Your task to perform on an android device: turn pop-ups on in chrome Image 0: 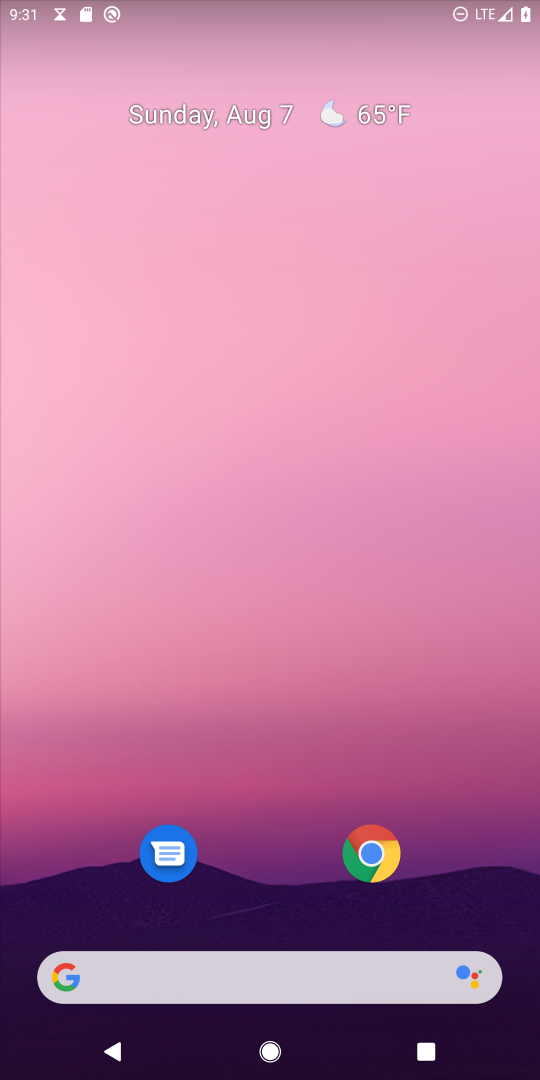
Step 0: drag from (308, 310) to (289, 45)
Your task to perform on an android device: turn pop-ups on in chrome Image 1: 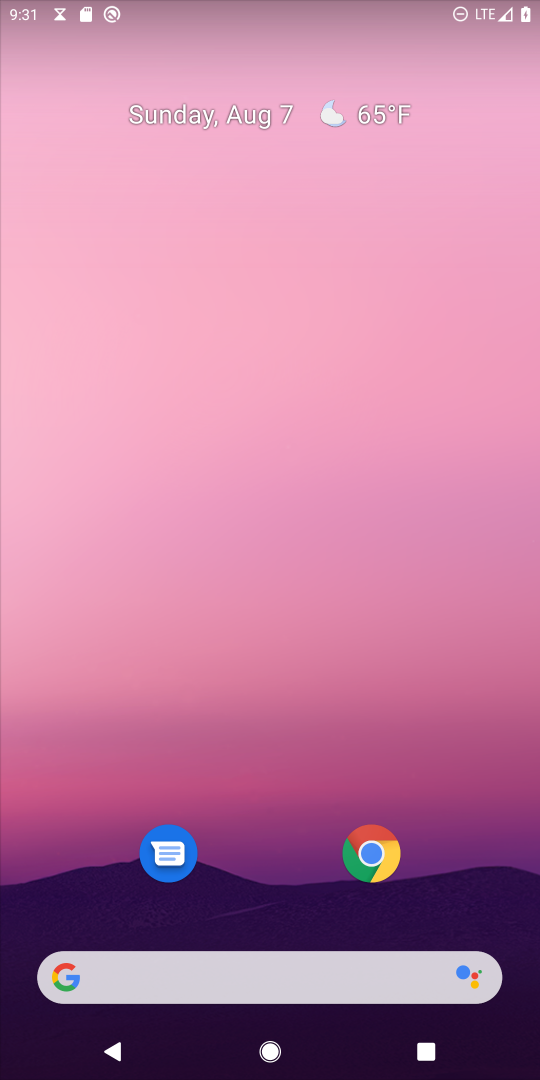
Step 1: drag from (252, 863) to (243, 306)
Your task to perform on an android device: turn pop-ups on in chrome Image 2: 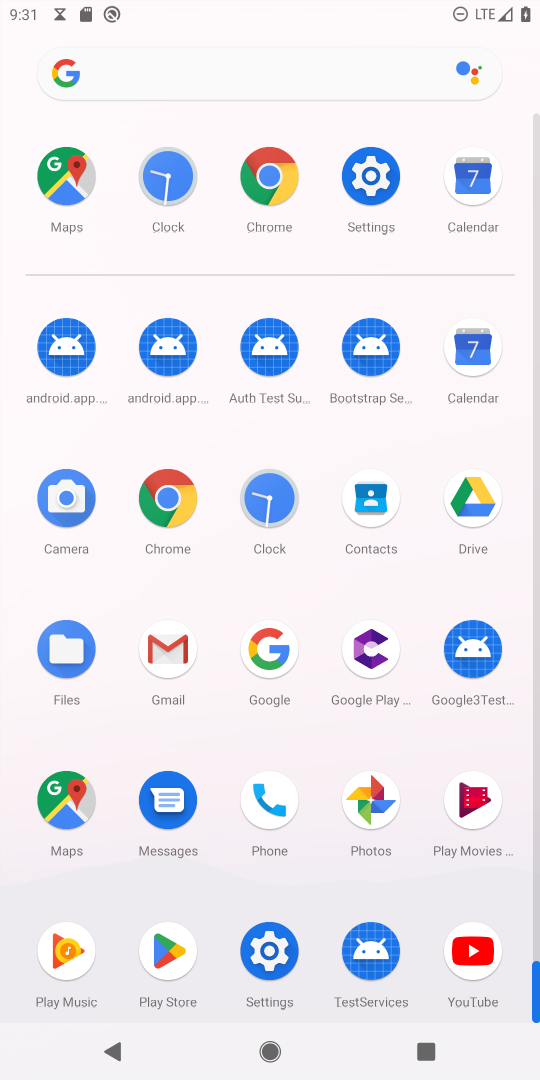
Step 2: click (276, 181)
Your task to perform on an android device: turn pop-ups on in chrome Image 3: 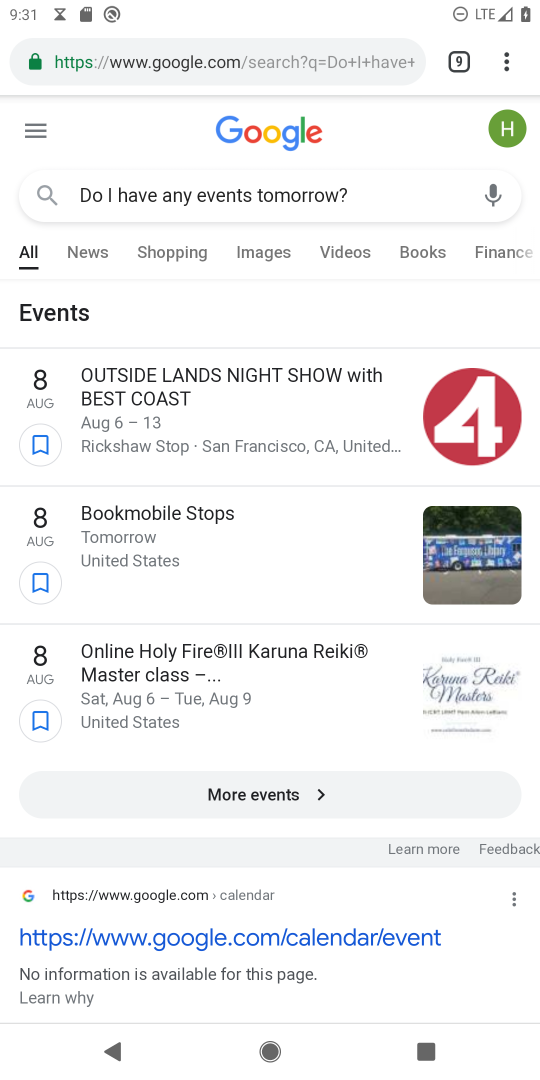
Step 3: click (512, 52)
Your task to perform on an android device: turn pop-ups on in chrome Image 4: 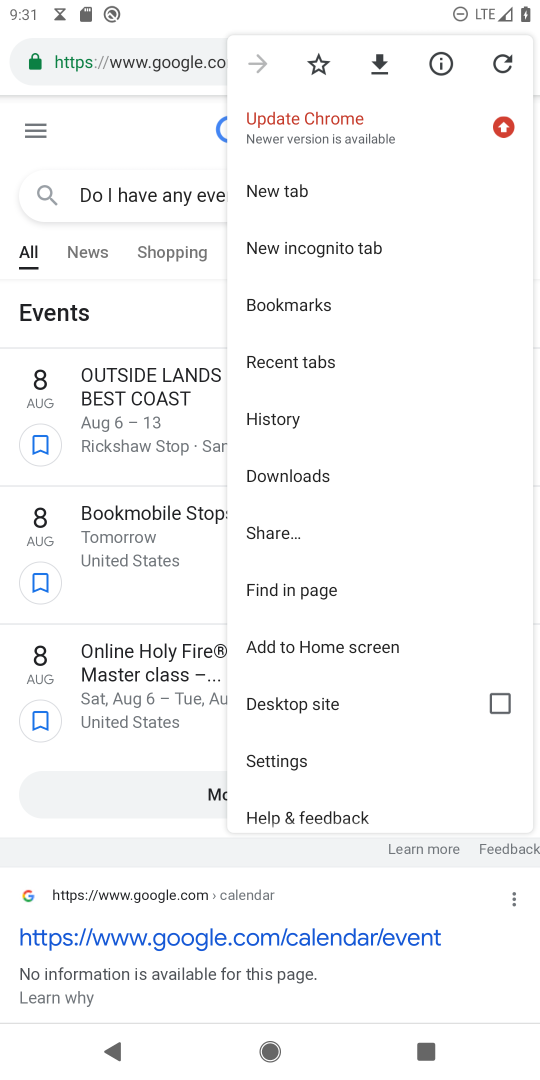
Step 4: click (283, 765)
Your task to perform on an android device: turn pop-ups on in chrome Image 5: 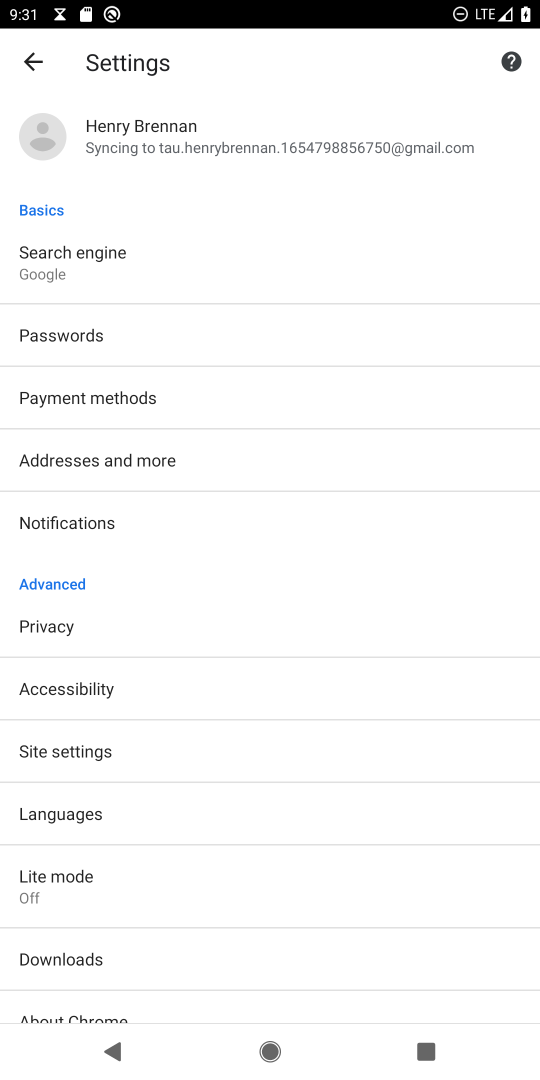
Step 5: drag from (191, 842) to (283, 311)
Your task to perform on an android device: turn pop-ups on in chrome Image 6: 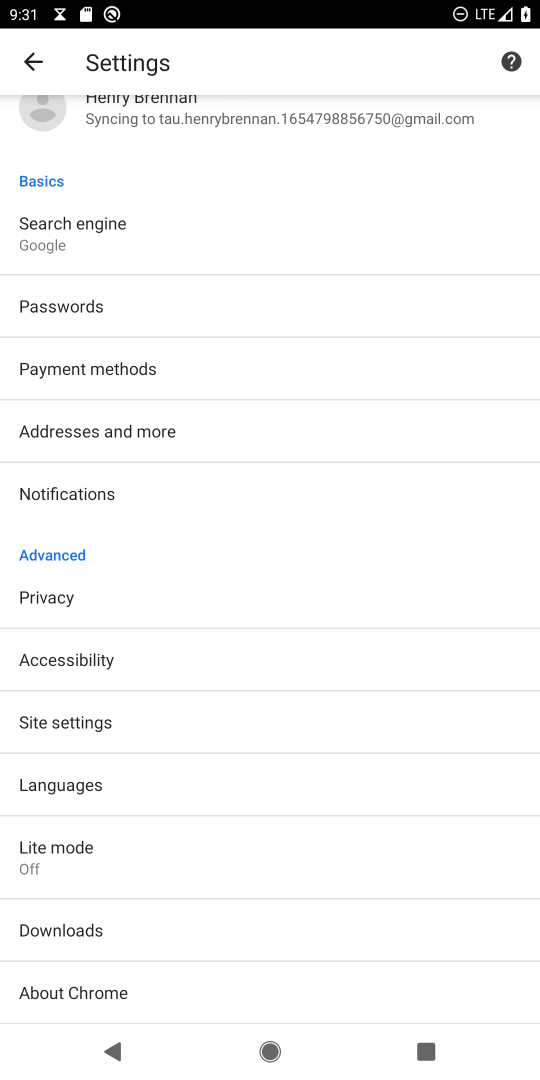
Step 6: click (124, 709)
Your task to perform on an android device: turn pop-ups on in chrome Image 7: 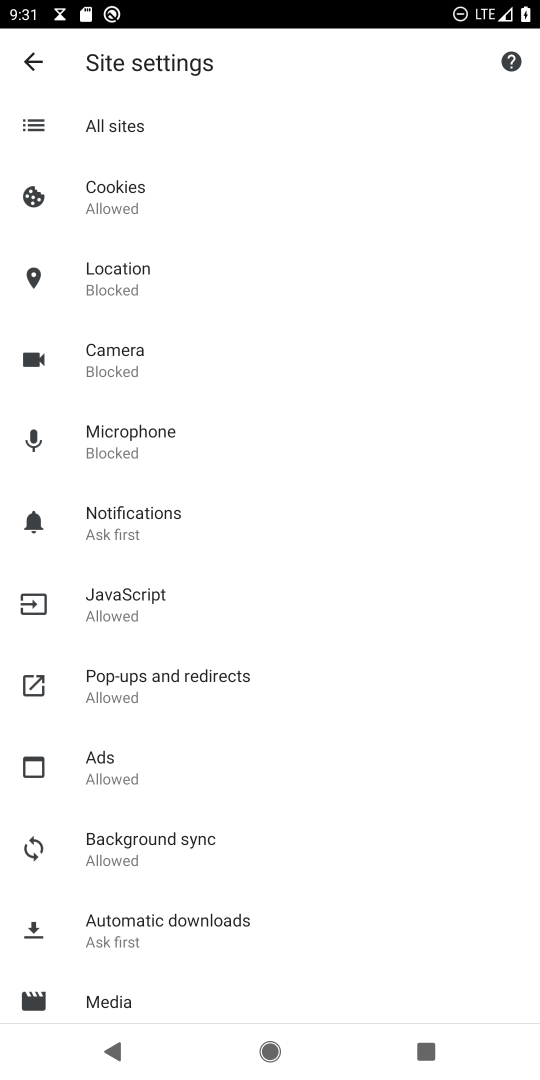
Step 7: click (115, 668)
Your task to perform on an android device: turn pop-ups on in chrome Image 8: 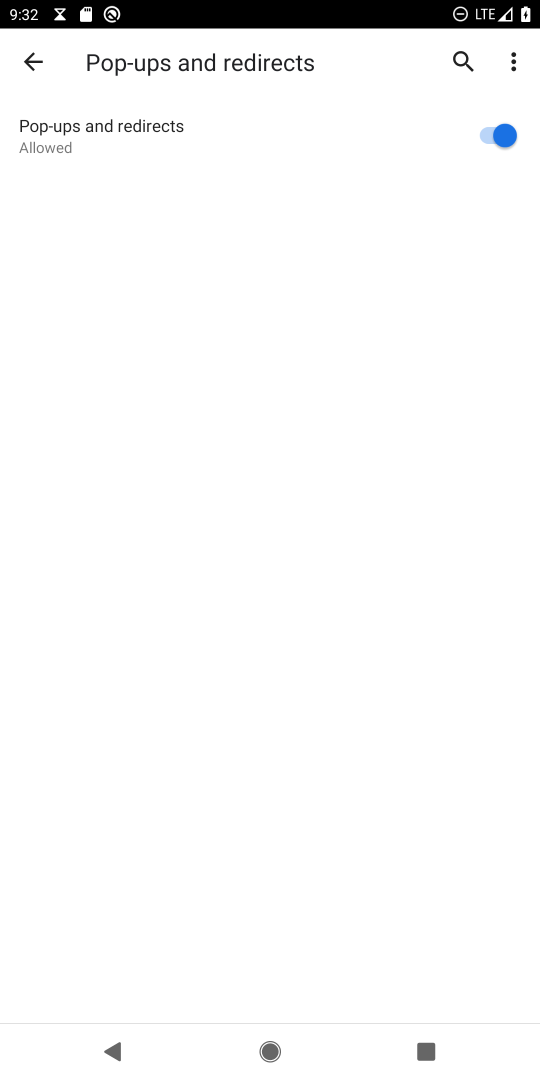
Step 8: task complete